Your task to perform on an android device: Go to privacy settings Image 0: 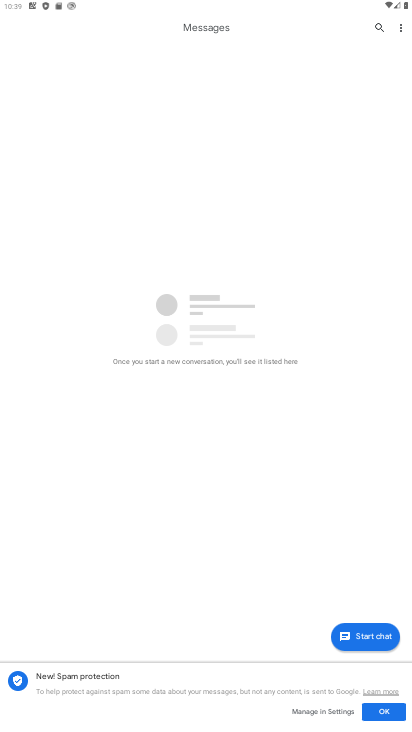
Step 0: press home button
Your task to perform on an android device: Go to privacy settings Image 1: 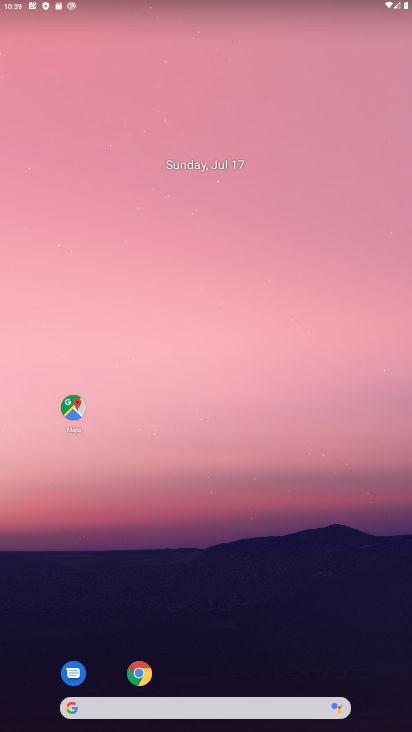
Step 1: drag from (223, 685) to (256, 116)
Your task to perform on an android device: Go to privacy settings Image 2: 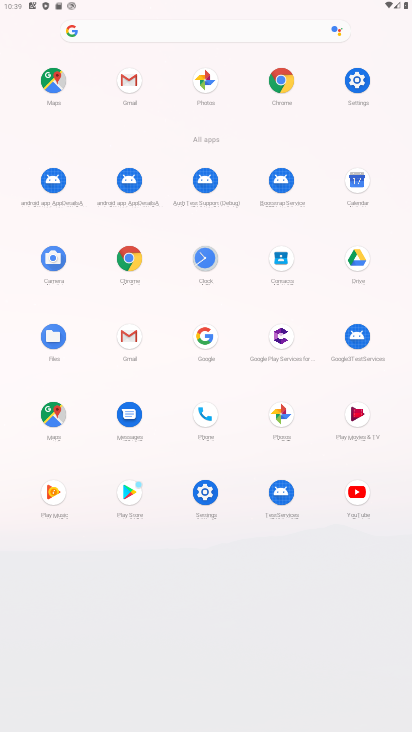
Step 2: click (359, 80)
Your task to perform on an android device: Go to privacy settings Image 3: 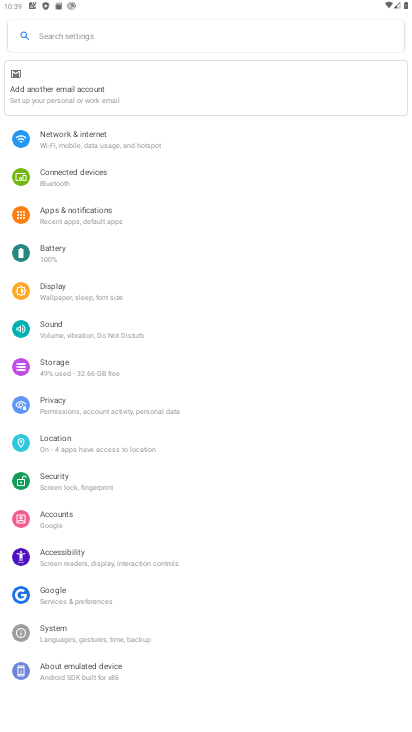
Step 3: click (58, 399)
Your task to perform on an android device: Go to privacy settings Image 4: 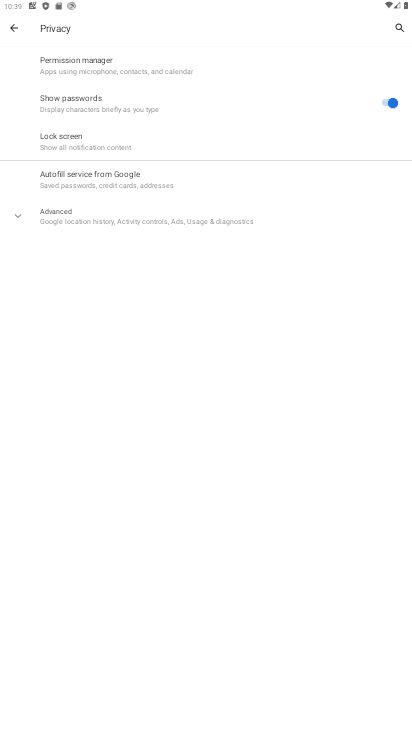
Step 4: task complete